Your task to perform on an android device: move an email to a new category in the gmail app Image 0: 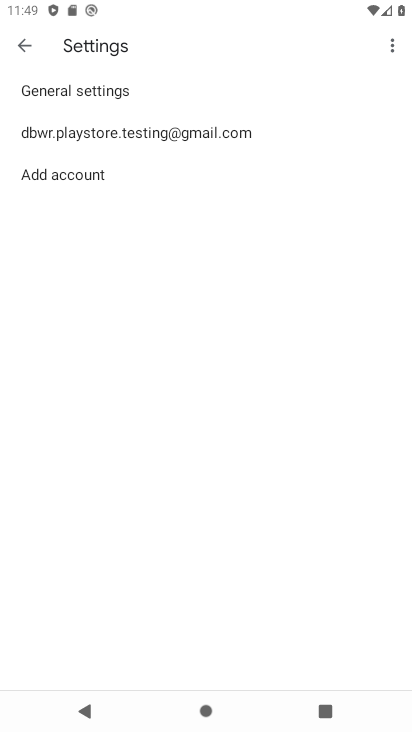
Step 0: press home button
Your task to perform on an android device: move an email to a new category in the gmail app Image 1: 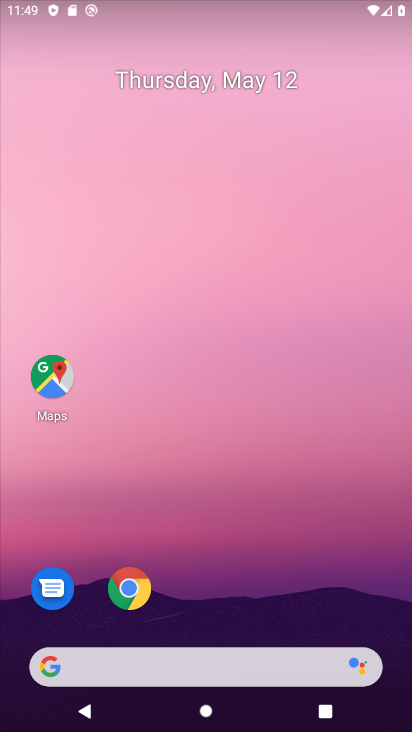
Step 1: drag from (199, 527) to (200, 17)
Your task to perform on an android device: move an email to a new category in the gmail app Image 2: 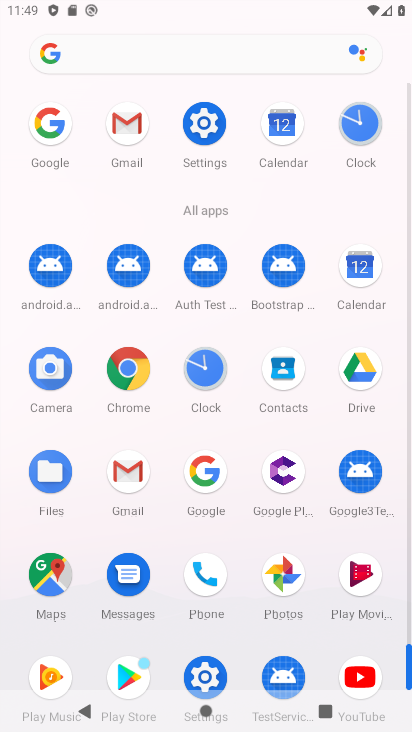
Step 2: click (135, 483)
Your task to perform on an android device: move an email to a new category in the gmail app Image 3: 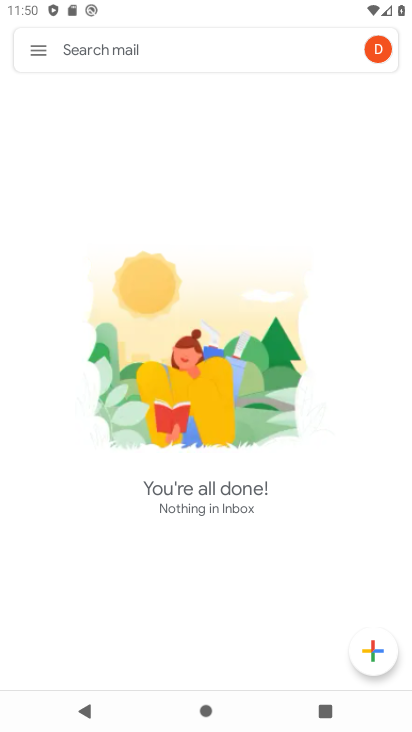
Step 3: click (36, 59)
Your task to perform on an android device: move an email to a new category in the gmail app Image 4: 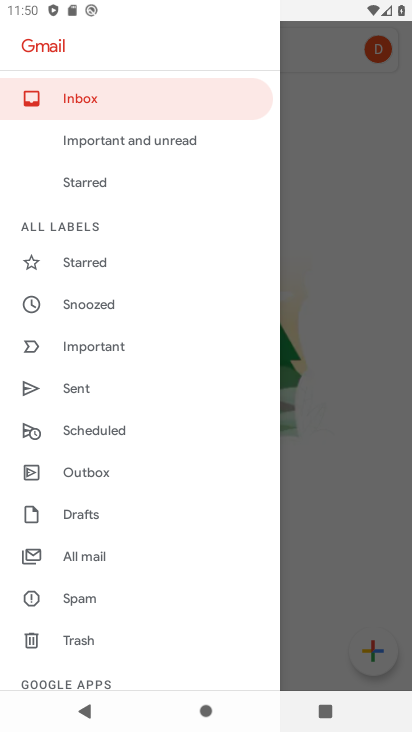
Step 4: drag from (95, 465) to (126, 337)
Your task to perform on an android device: move an email to a new category in the gmail app Image 5: 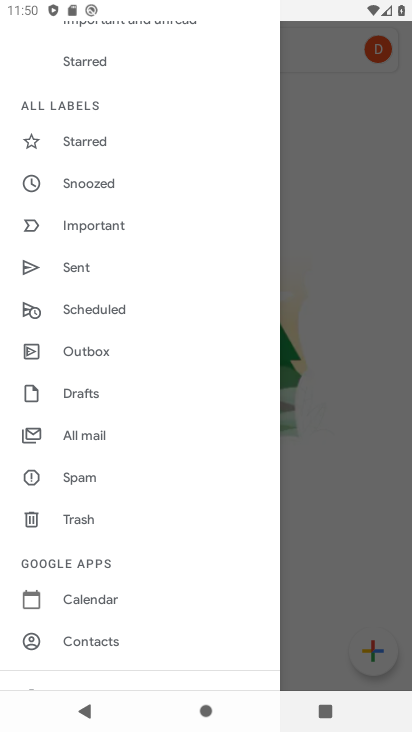
Step 5: click (101, 434)
Your task to perform on an android device: move an email to a new category in the gmail app Image 6: 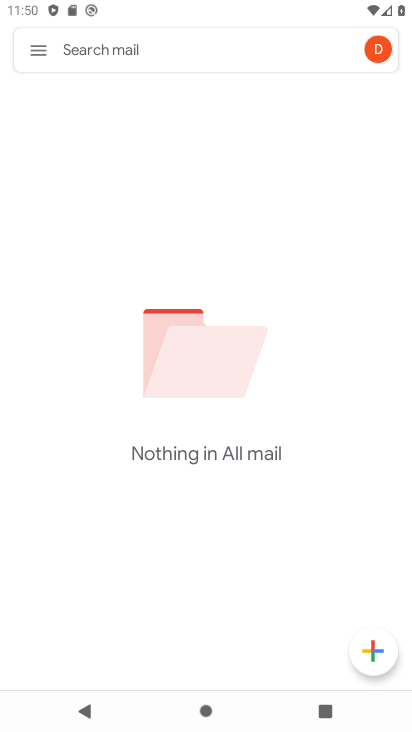
Step 6: click (43, 48)
Your task to perform on an android device: move an email to a new category in the gmail app Image 7: 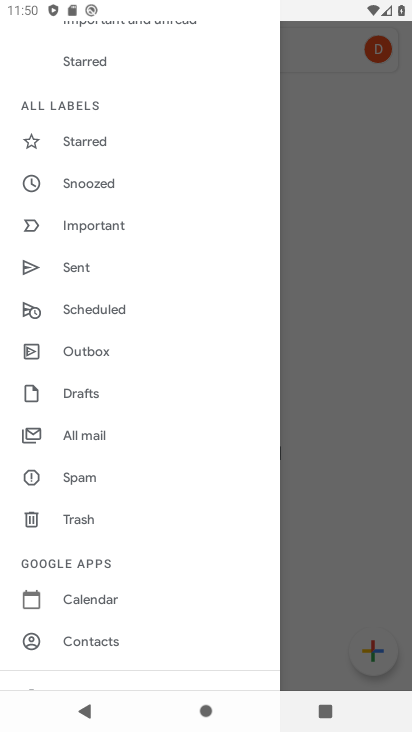
Step 7: click (390, 259)
Your task to perform on an android device: move an email to a new category in the gmail app Image 8: 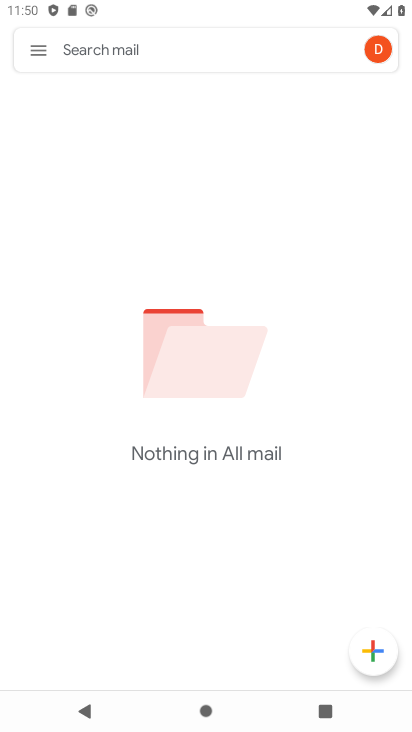
Step 8: task complete